Your task to perform on an android device: move an email to a new category in the gmail app Image 0: 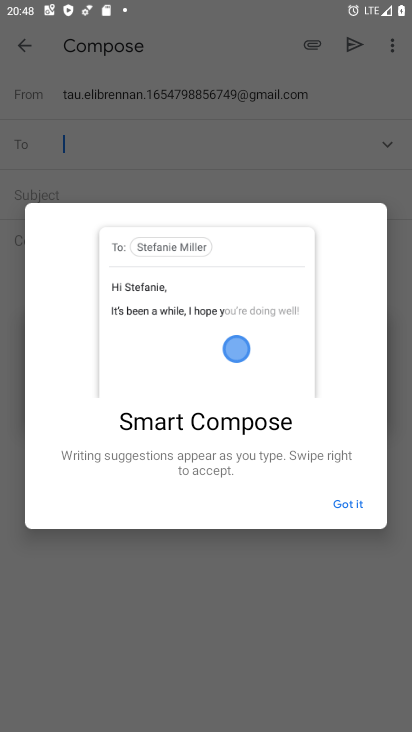
Step 0: press home button
Your task to perform on an android device: move an email to a new category in the gmail app Image 1: 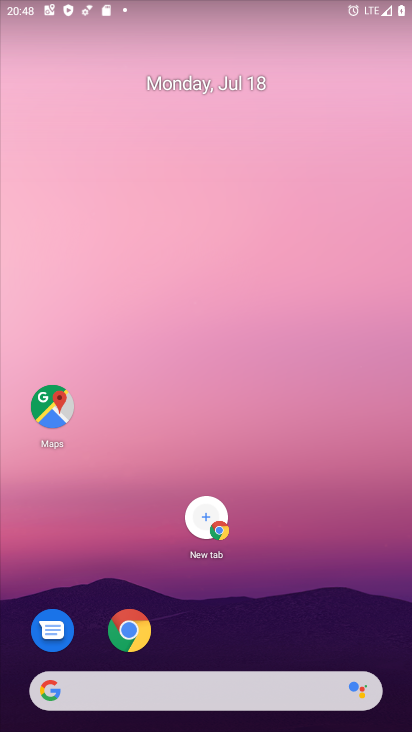
Step 1: drag from (218, 633) to (294, 328)
Your task to perform on an android device: move an email to a new category in the gmail app Image 2: 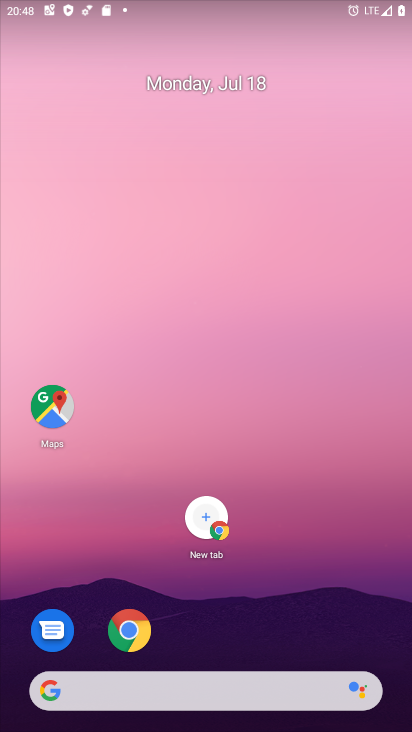
Step 2: drag from (246, 622) to (313, 194)
Your task to perform on an android device: move an email to a new category in the gmail app Image 3: 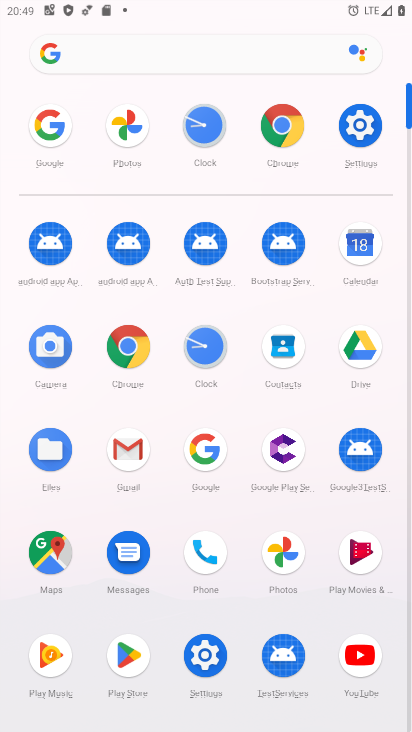
Step 3: click (140, 459)
Your task to perform on an android device: move an email to a new category in the gmail app Image 4: 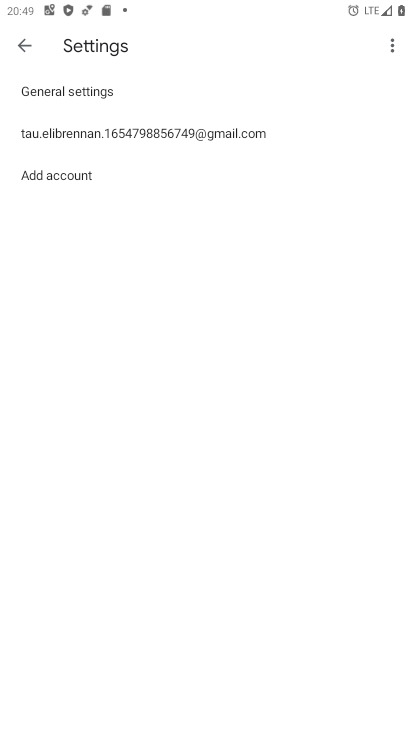
Step 4: click (34, 39)
Your task to perform on an android device: move an email to a new category in the gmail app Image 5: 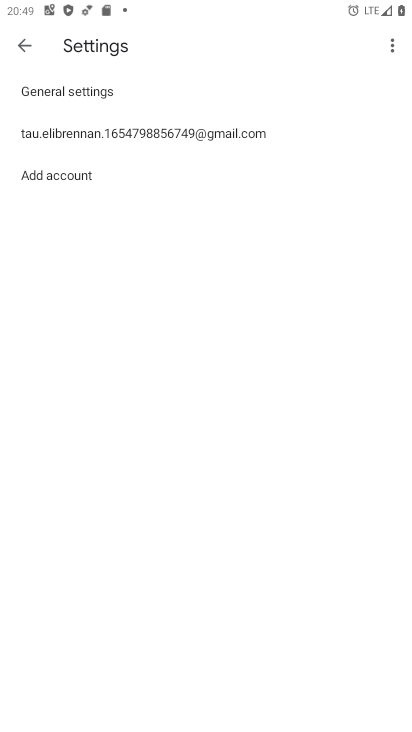
Step 5: click (44, 54)
Your task to perform on an android device: move an email to a new category in the gmail app Image 6: 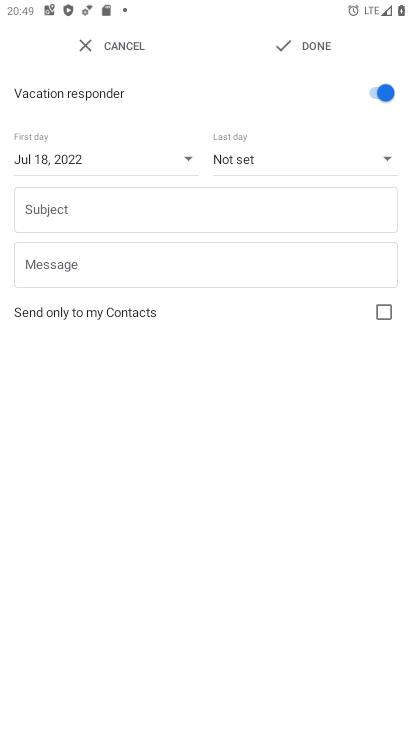
Step 6: click (82, 39)
Your task to perform on an android device: move an email to a new category in the gmail app Image 7: 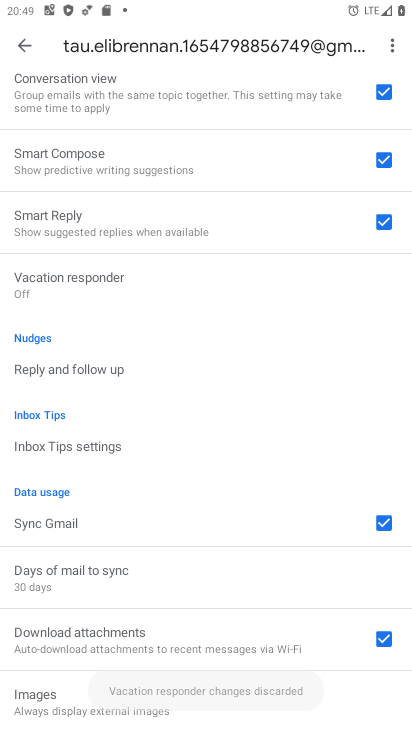
Step 7: drag from (136, 70) to (177, 410)
Your task to perform on an android device: move an email to a new category in the gmail app Image 8: 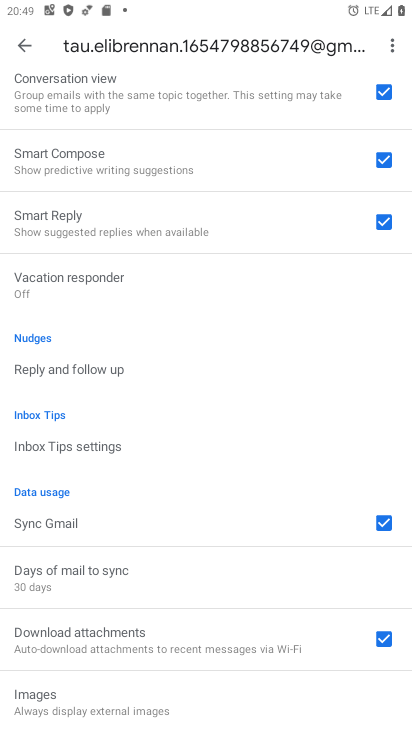
Step 8: click (35, 36)
Your task to perform on an android device: move an email to a new category in the gmail app Image 9: 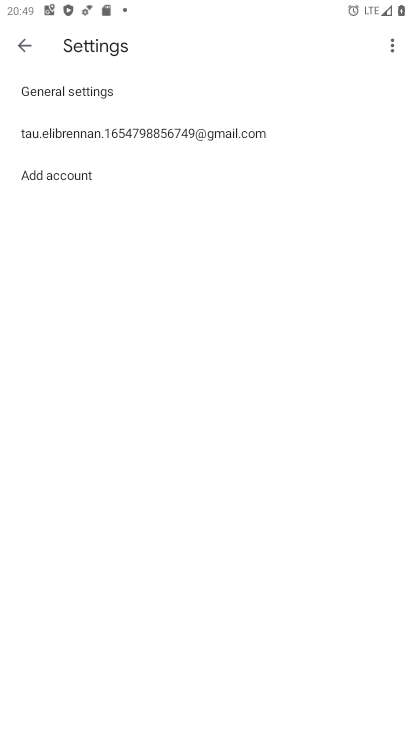
Step 9: click (36, 33)
Your task to perform on an android device: move an email to a new category in the gmail app Image 10: 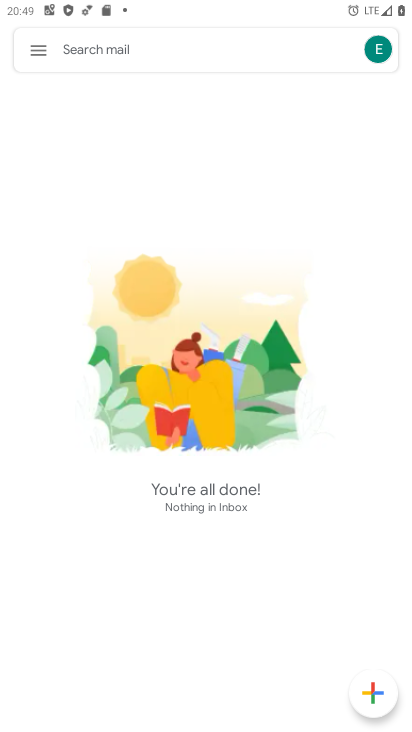
Step 10: task complete